Your task to perform on an android device: Do I have any events today? Image 0: 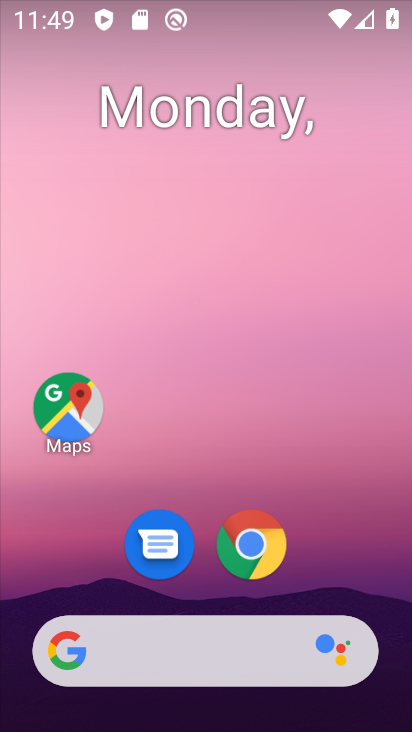
Step 0: drag from (382, 529) to (357, 127)
Your task to perform on an android device: Do I have any events today? Image 1: 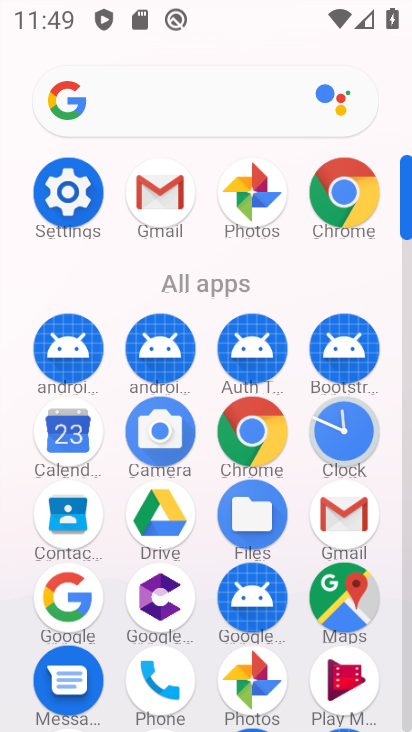
Step 1: click (70, 439)
Your task to perform on an android device: Do I have any events today? Image 2: 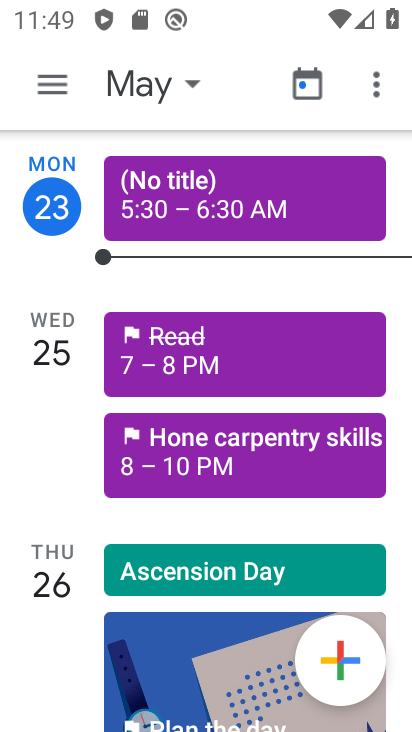
Step 2: task complete